Your task to perform on an android device: Go to Amazon Image 0: 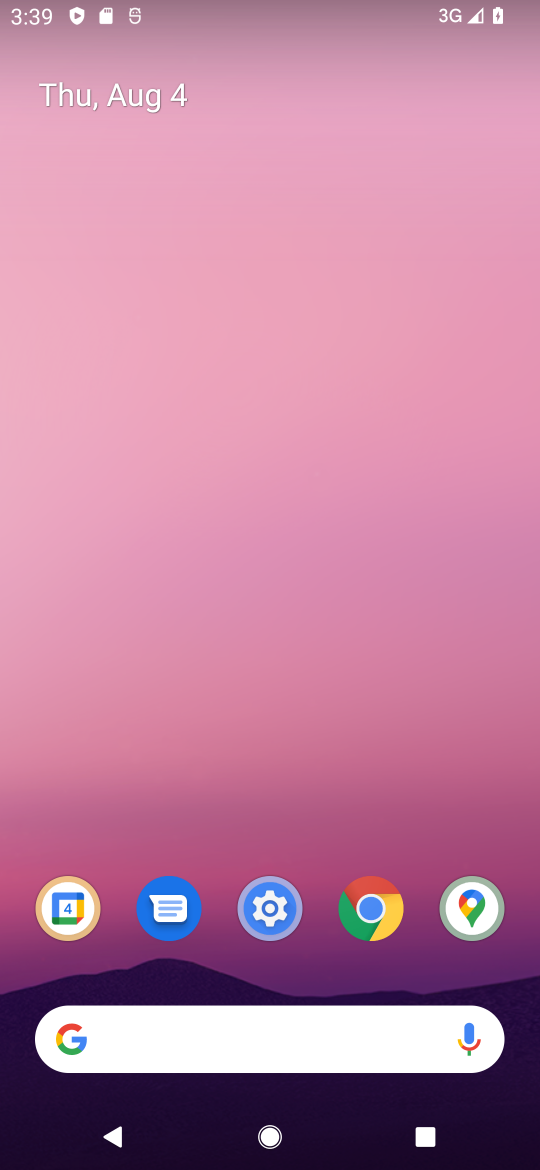
Step 0: click (368, 921)
Your task to perform on an android device: Go to Amazon Image 1: 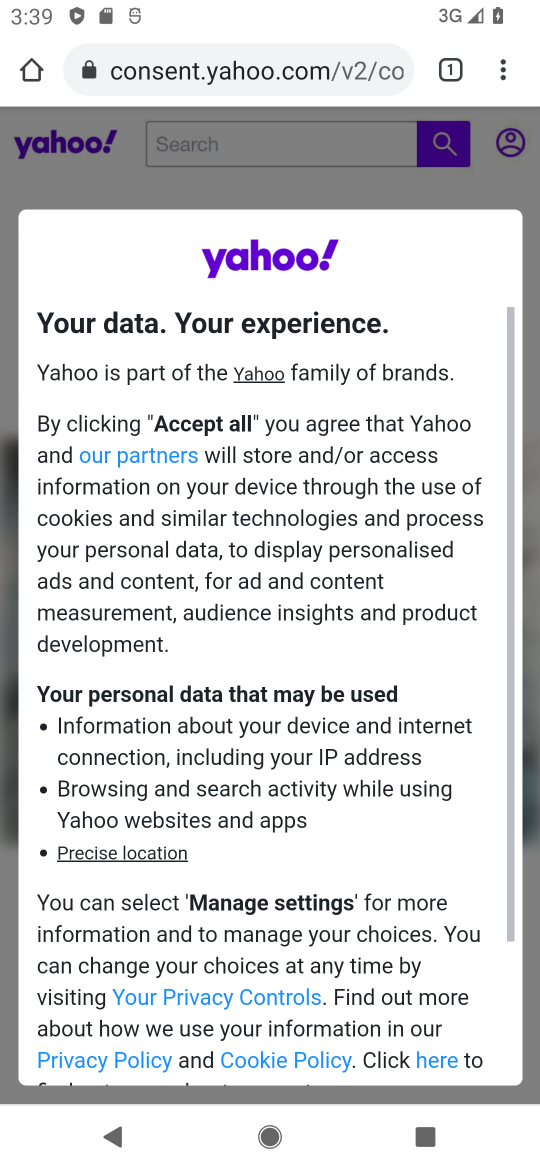
Step 1: click (301, 76)
Your task to perform on an android device: Go to Amazon Image 2: 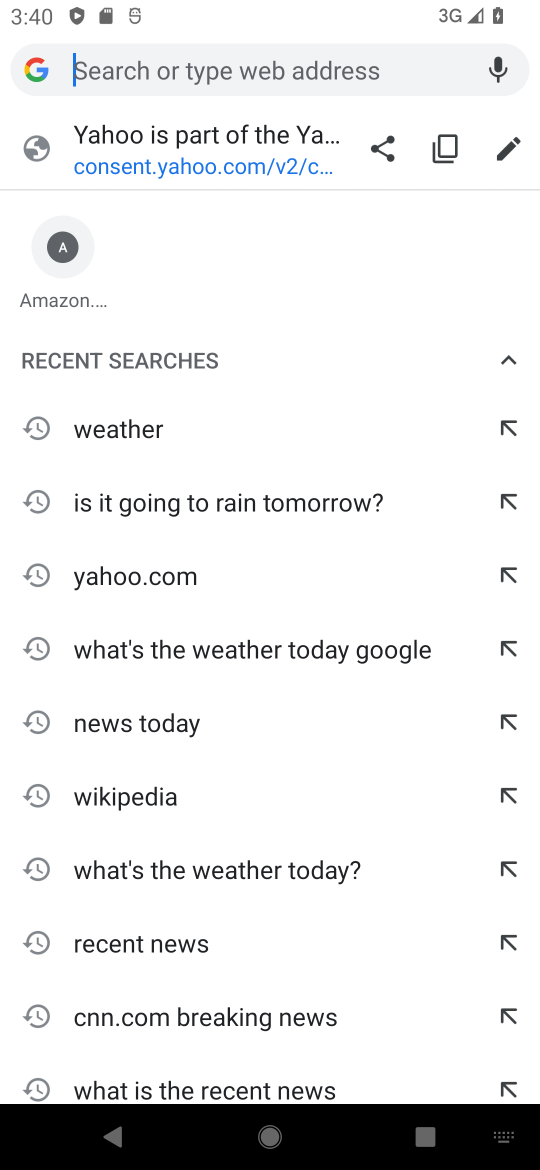
Step 2: type "amazon"
Your task to perform on an android device: Go to Amazon Image 3: 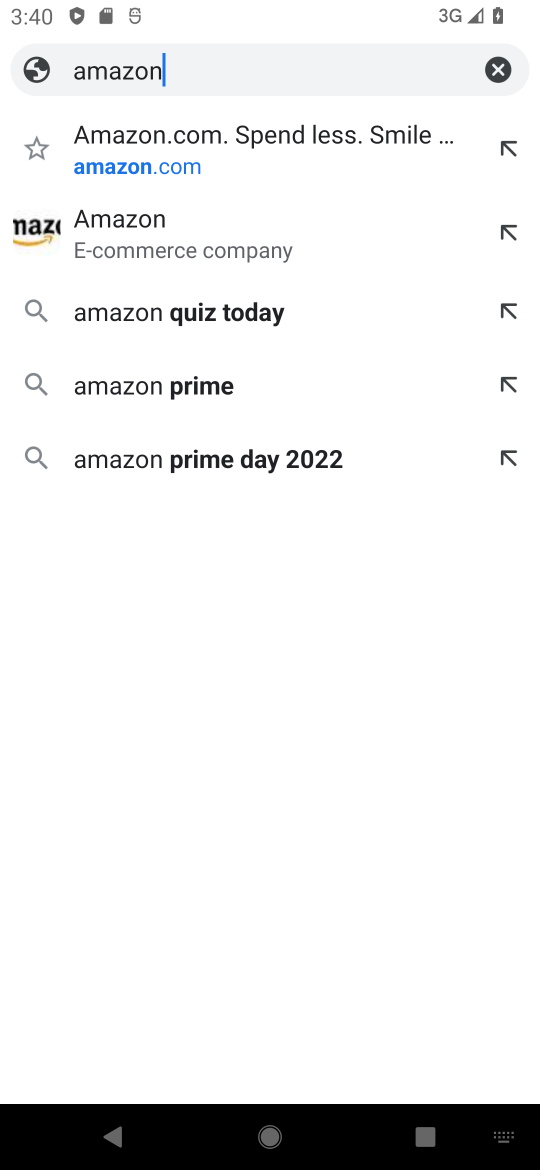
Step 3: click (209, 142)
Your task to perform on an android device: Go to Amazon Image 4: 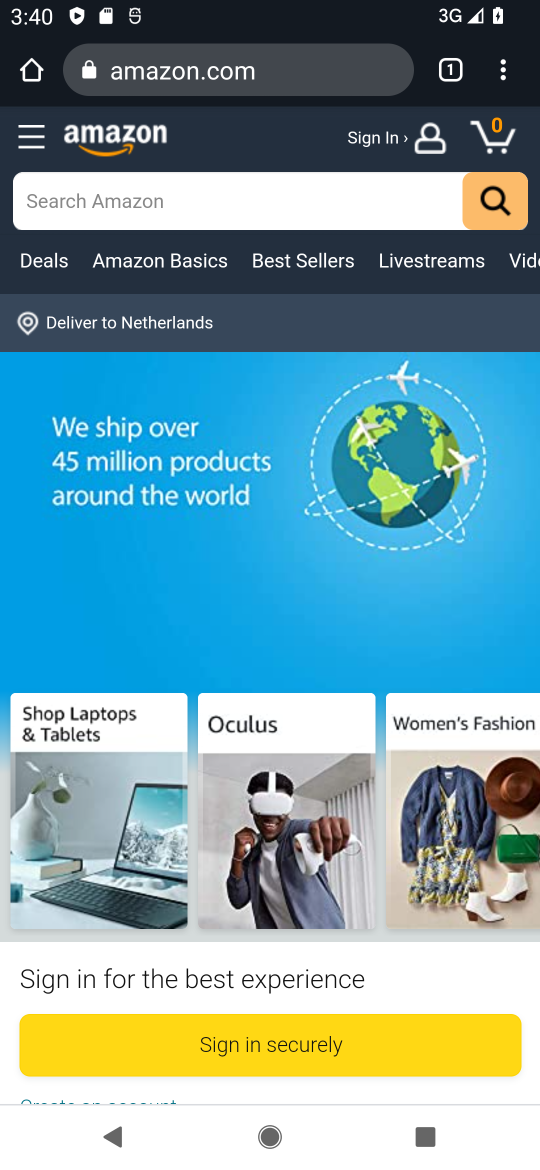
Step 4: task complete